Your task to perform on an android device: allow notifications from all sites in the chrome app Image 0: 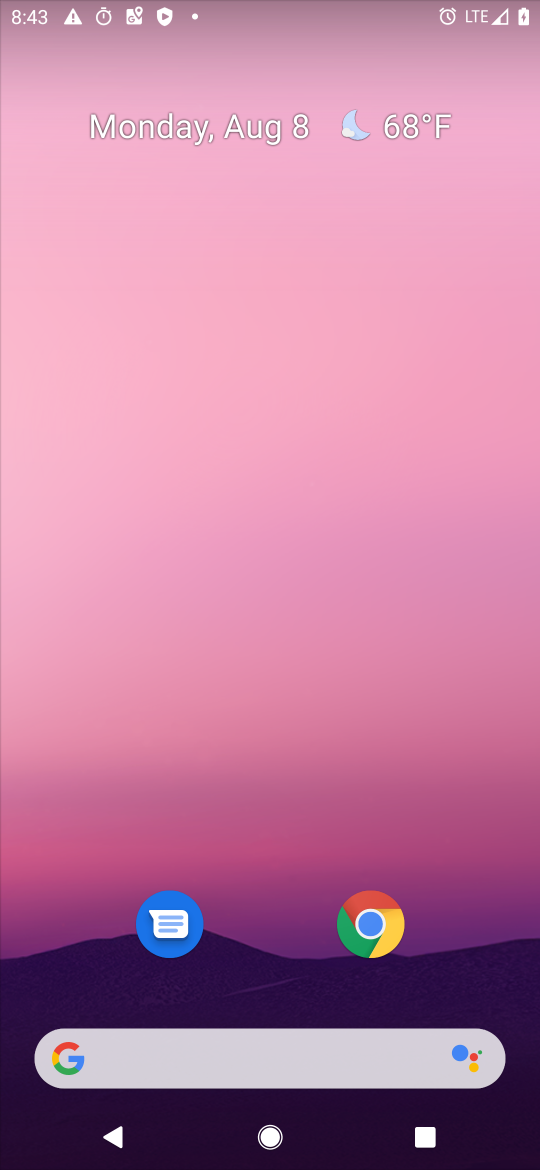
Step 0: press home button
Your task to perform on an android device: allow notifications from all sites in the chrome app Image 1: 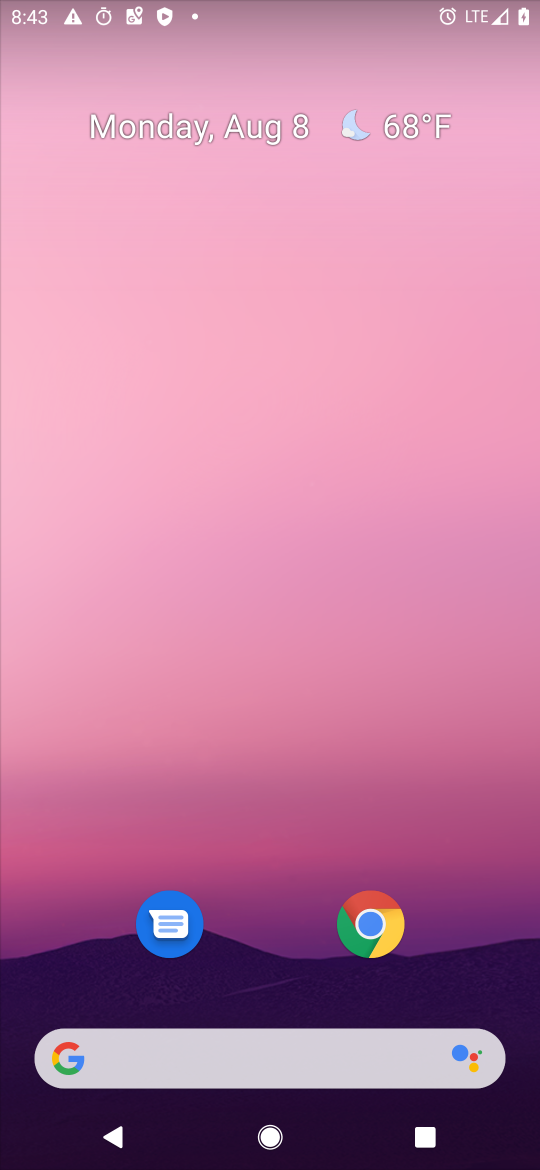
Step 1: drag from (267, 970) to (221, 106)
Your task to perform on an android device: allow notifications from all sites in the chrome app Image 2: 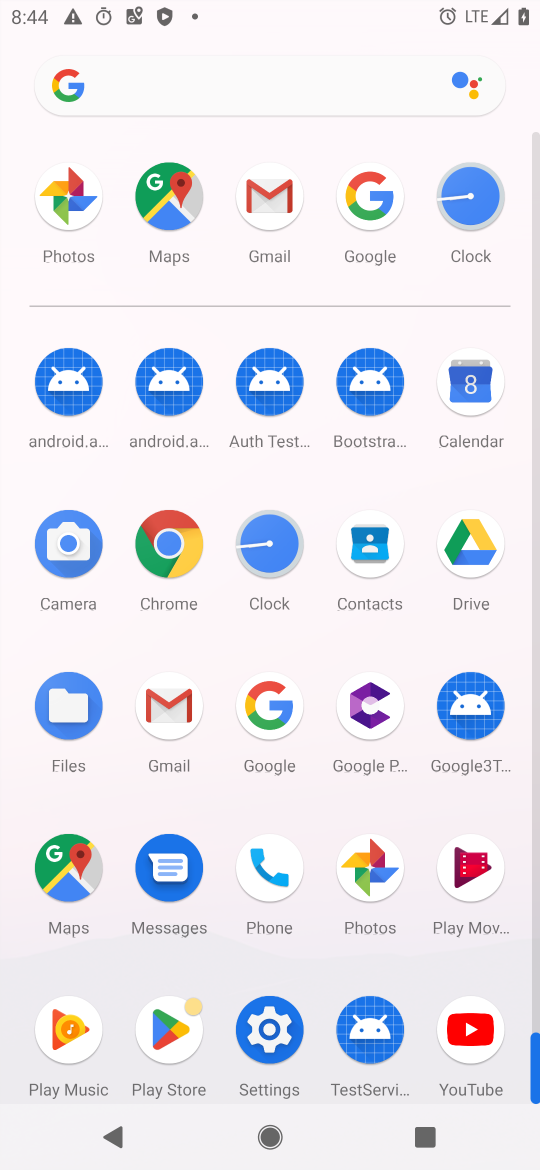
Step 2: click (173, 537)
Your task to perform on an android device: allow notifications from all sites in the chrome app Image 3: 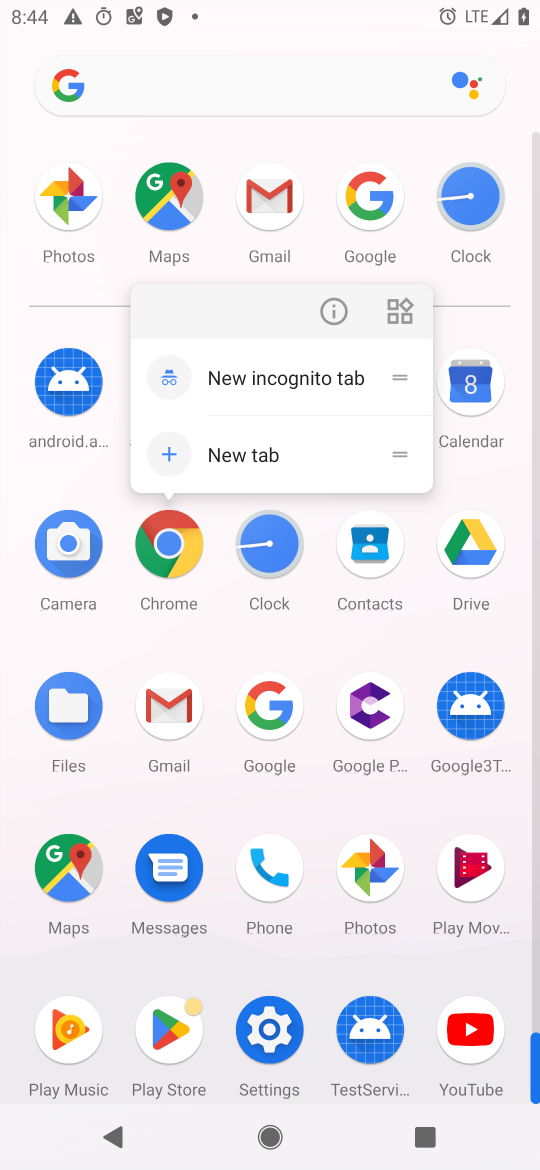
Step 3: click (317, 305)
Your task to perform on an android device: allow notifications from all sites in the chrome app Image 4: 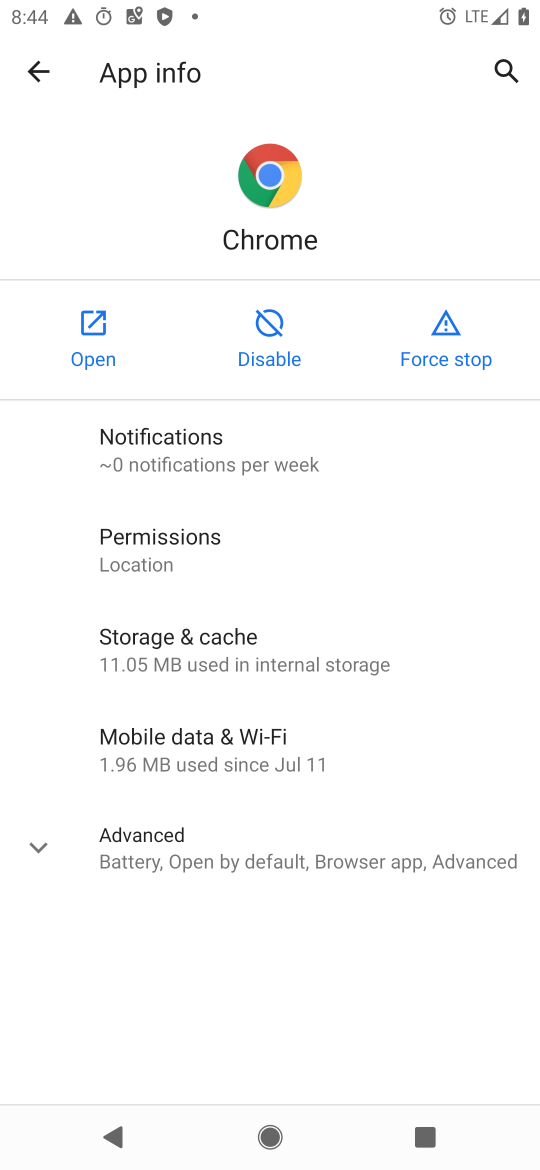
Step 4: click (85, 329)
Your task to perform on an android device: allow notifications from all sites in the chrome app Image 5: 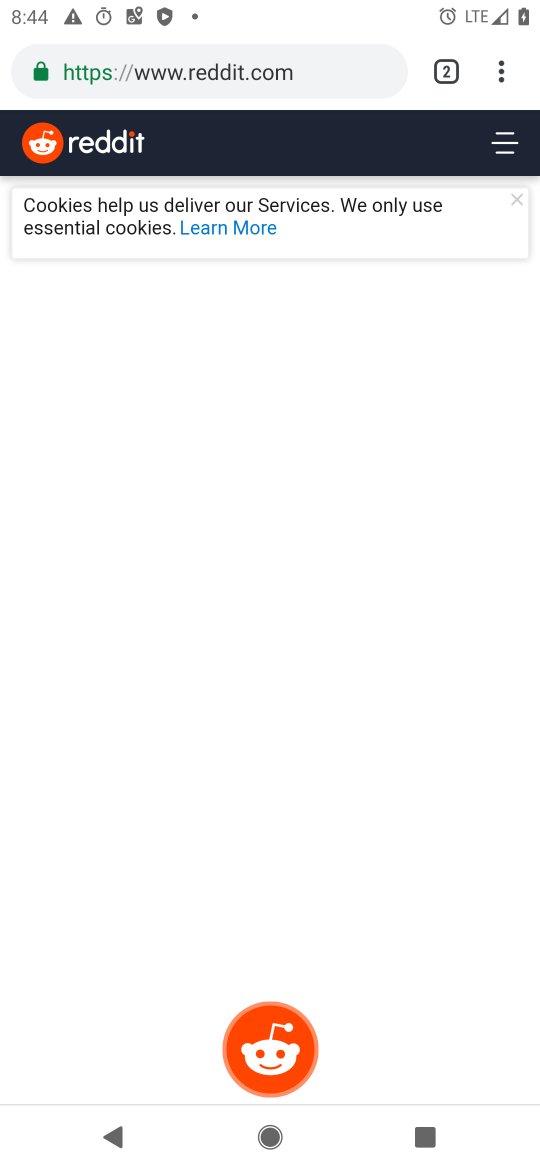
Step 5: drag from (505, 73) to (427, 878)
Your task to perform on an android device: allow notifications from all sites in the chrome app Image 6: 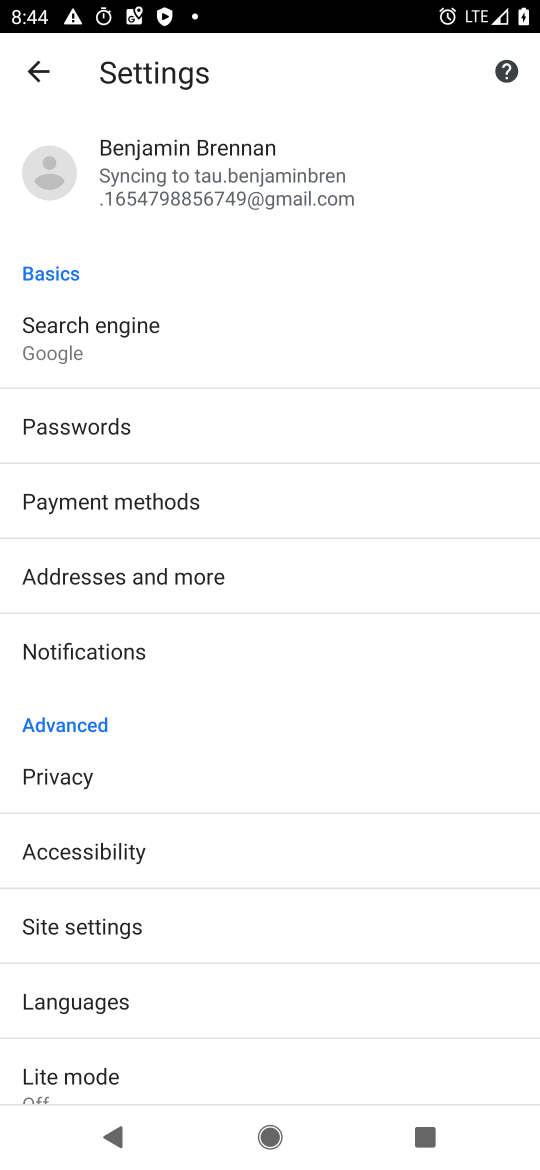
Step 6: click (202, 922)
Your task to perform on an android device: allow notifications from all sites in the chrome app Image 7: 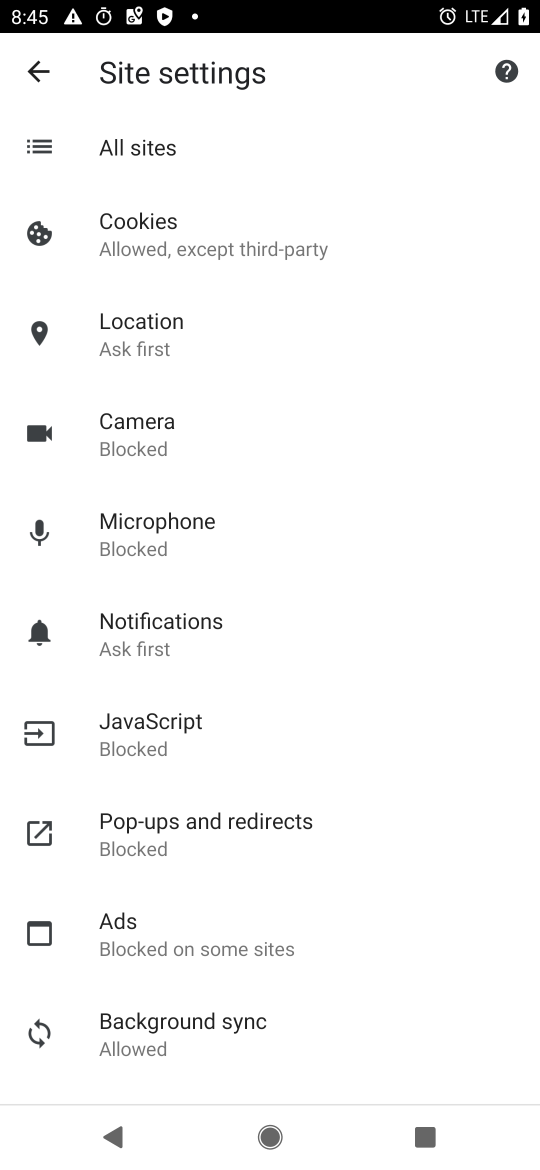
Step 7: click (274, 624)
Your task to perform on an android device: allow notifications from all sites in the chrome app Image 8: 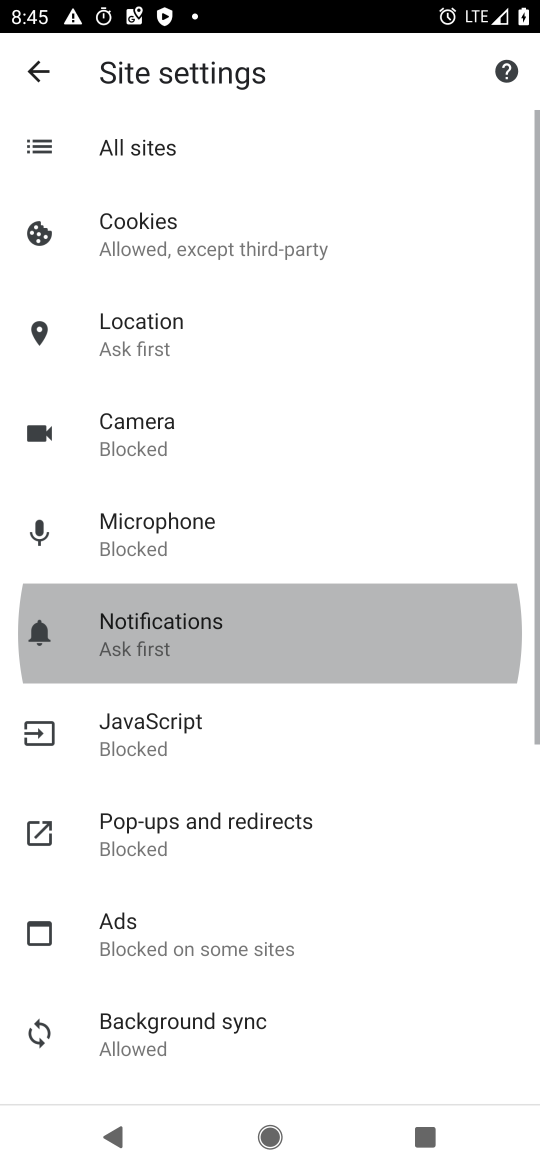
Step 8: click (274, 624)
Your task to perform on an android device: allow notifications from all sites in the chrome app Image 9: 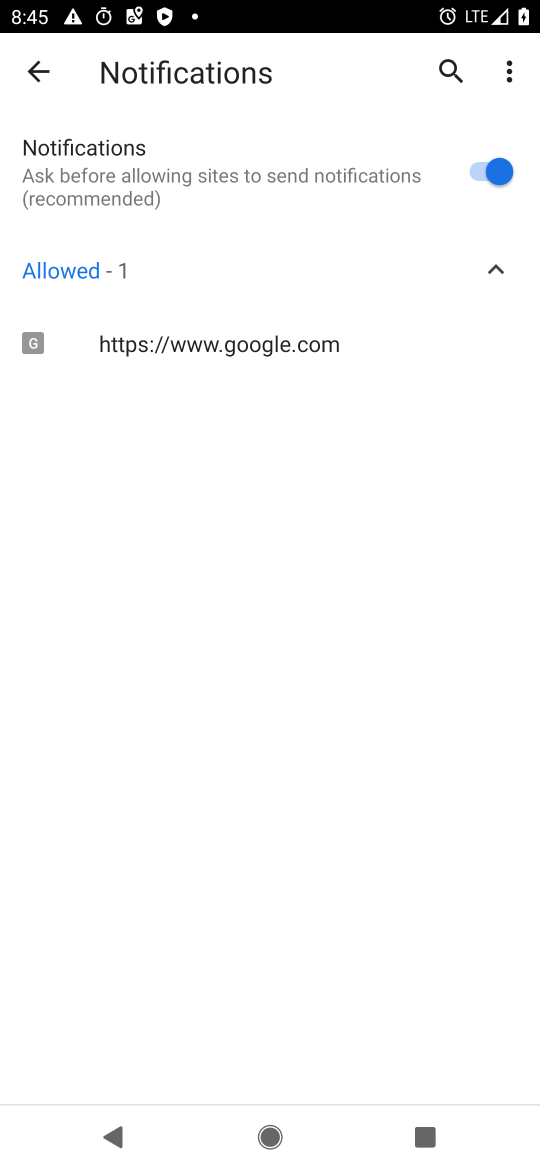
Step 9: task complete